Your task to perform on an android device: change your default location settings in chrome Image 0: 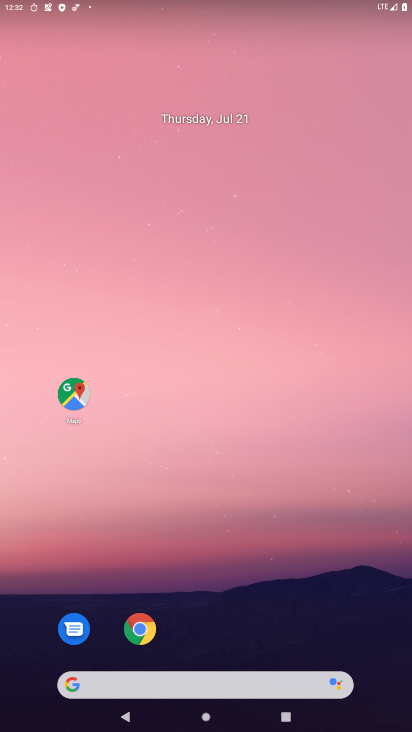
Step 0: drag from (184, 655) to (241, 48)
Your task to perform on an android device: change your default location settings in chrome Image 1: 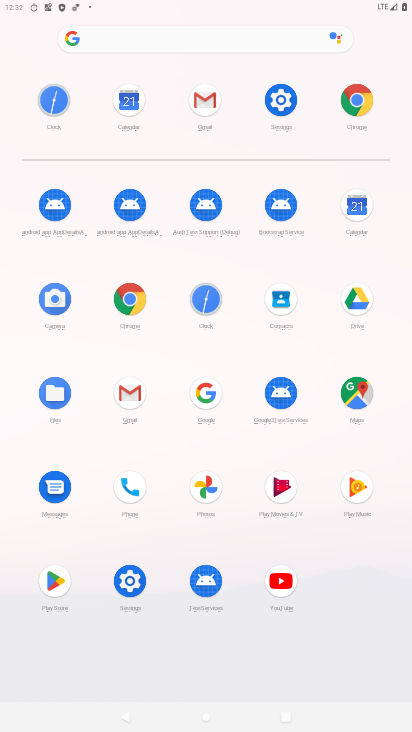
Step 1: click (120, 298)
Your task to perform on an android device: change your default location settings in chrome Image 2: 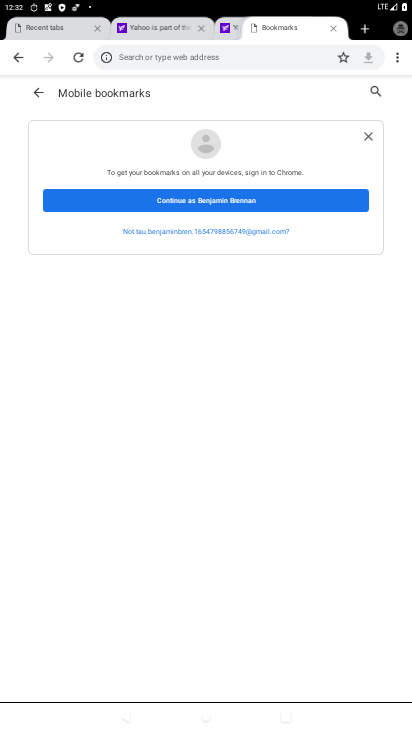
Step 2: drag from (395, 56) to (295, 268)
Your task to perform on an android device: change your default location settings in chrome Image 3: 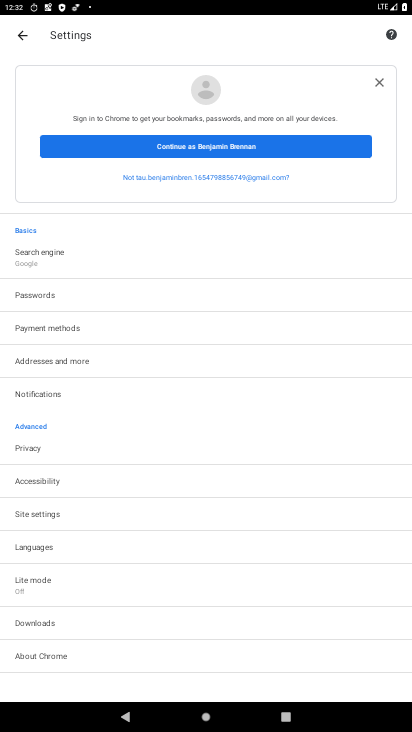
Step 3: click (39, 251)
Your task to perform on an android device: change your default location settings in chrome Image 4: 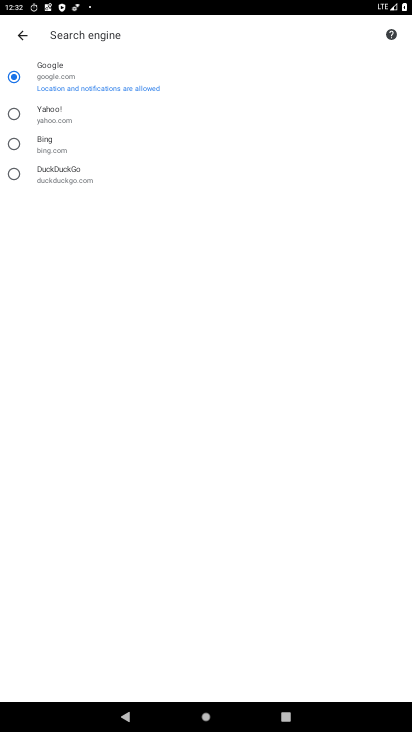
Step 4: task complete